Your task to perform on an android device: Open Google Maps Image 0: 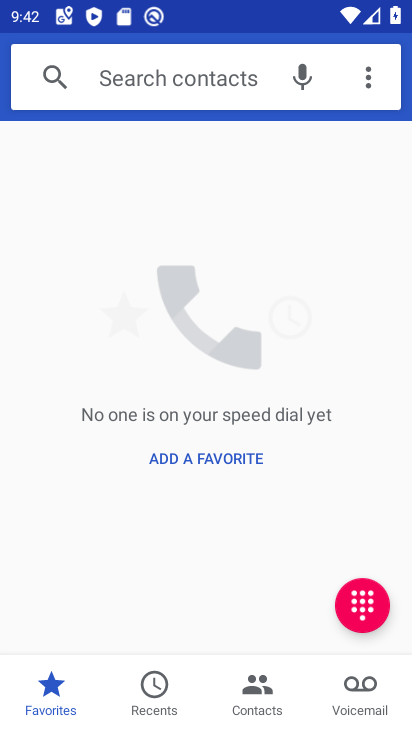
Step 0: press home button
Your task to perform on an android device: Open Google Maps Image 1: 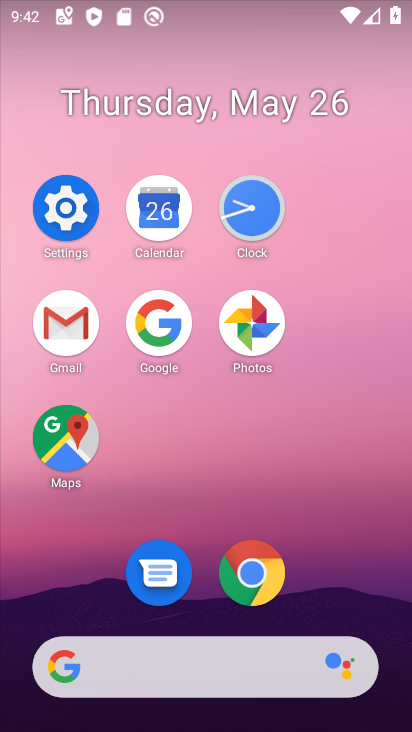
Step 1: click (71, 438)
Your task to perform on an android device: Open Google Maps Image 2: 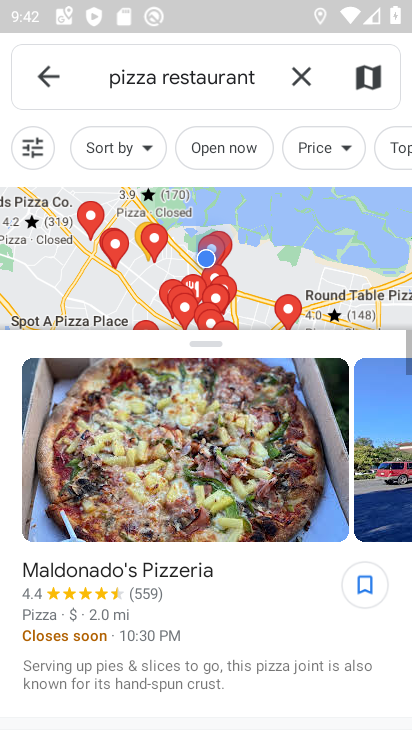
Step 2: task complete